Your task to perform on an android device: set an alarm Image 0: 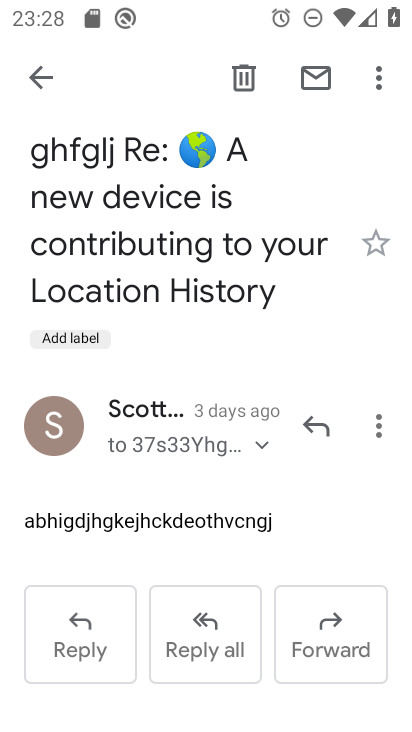
Step 0: press home button
Your task to perform on an android device: set an alarm Image 1: 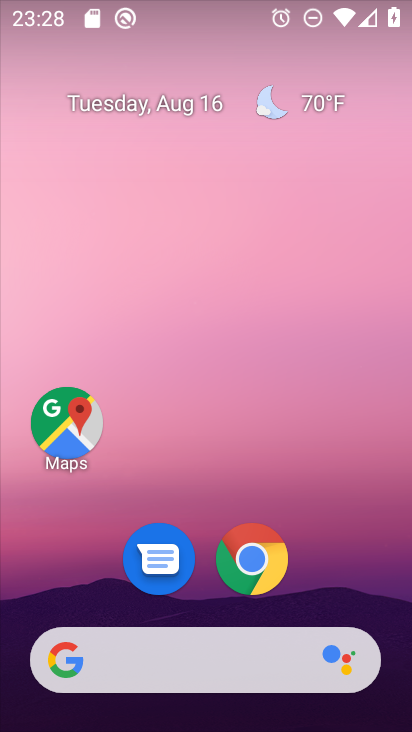
Step 1: drag from (207, 636) to (230, 109)
Your task to perform on an android device: set an alarm Image 2: 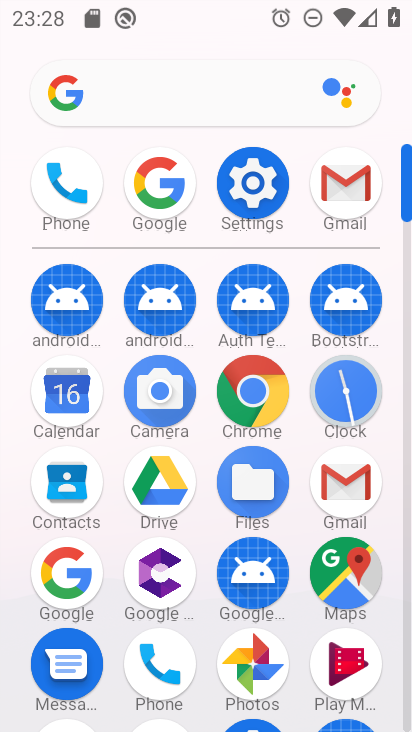
Step 2: click (347, 393)
Your task to perform on an android device: set an alarm Image 3: 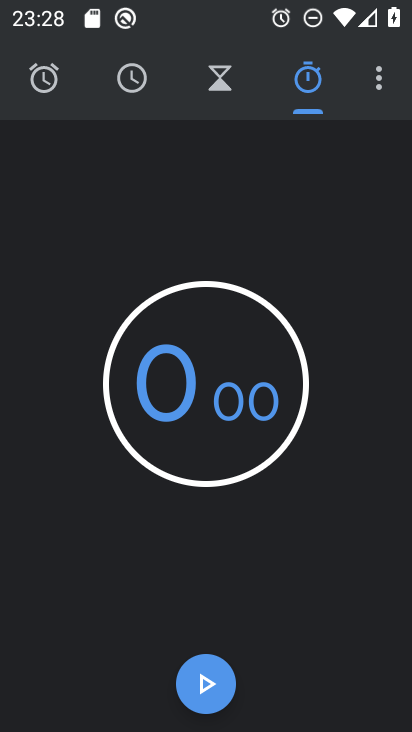
Step 3: click (45, 80)
Your task to perform on an android device: set an alarm Image 4: 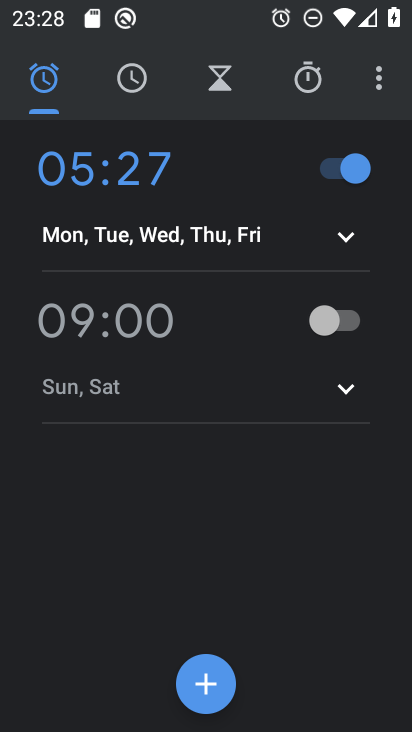
Step 4: click (206, 687)
Your task to perform on an android device: set an alarm Image 5: 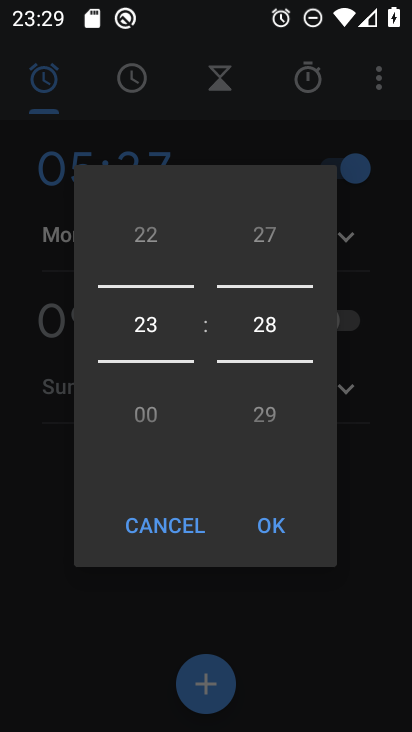
Step 5: click (155, 260)
Your task to perform on an android device: set an alarm Image 6: 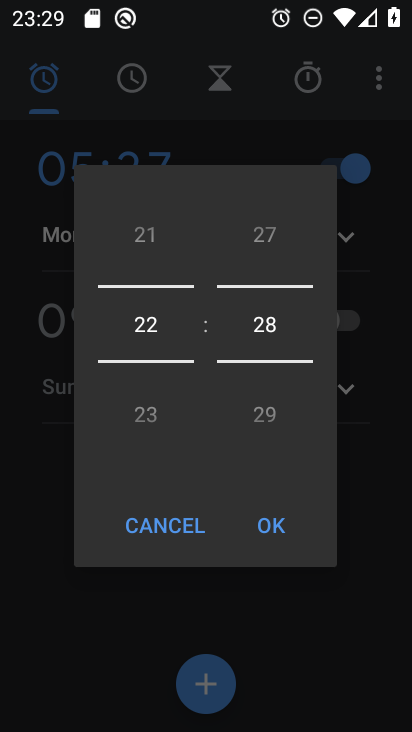
Step 6: click (155, 260)
Your task to perform on an android device: set an alarm Image 7: 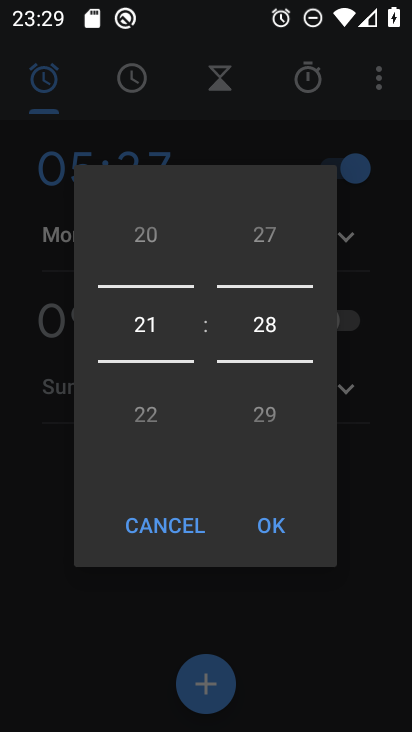
Step 7: click (155, 260)
Your task to perform on an android device: set an alarm Image 8: 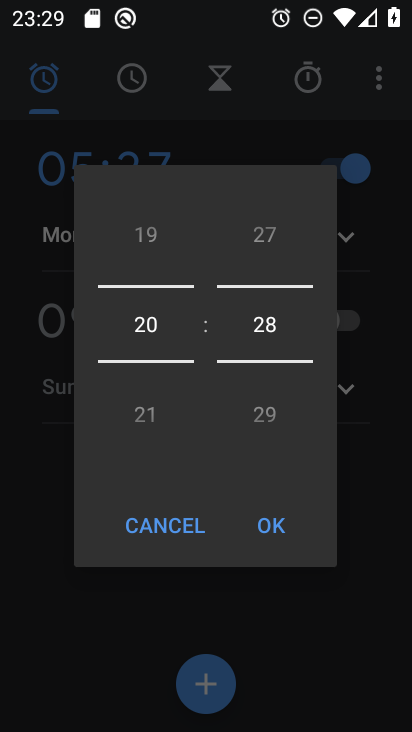
Step 8: click (155, 260)
Your task to perform on an android device: set an alarm Image 9: 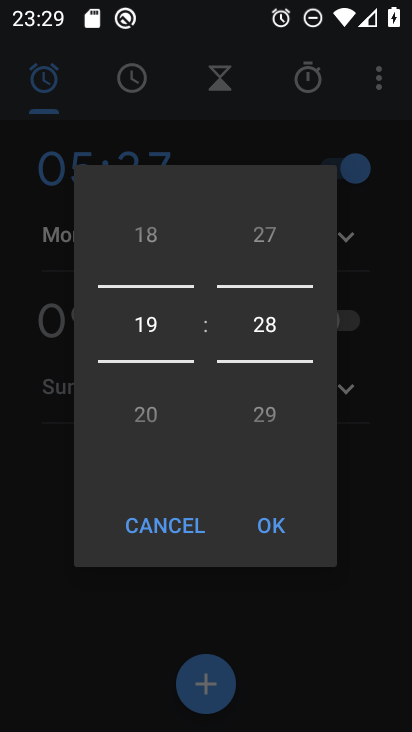
Step 9: click (155, 260)
Your task to perform on an android device: set an alarm Image 10: 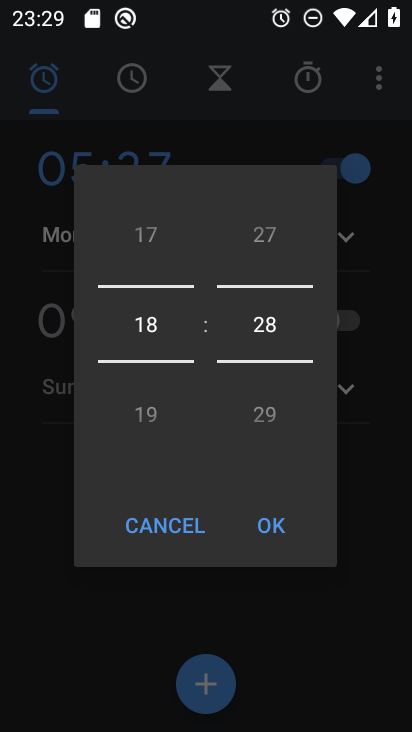
Step 10: click (155, 260)
Your task to perform on an android device: set an alarm Image 11: 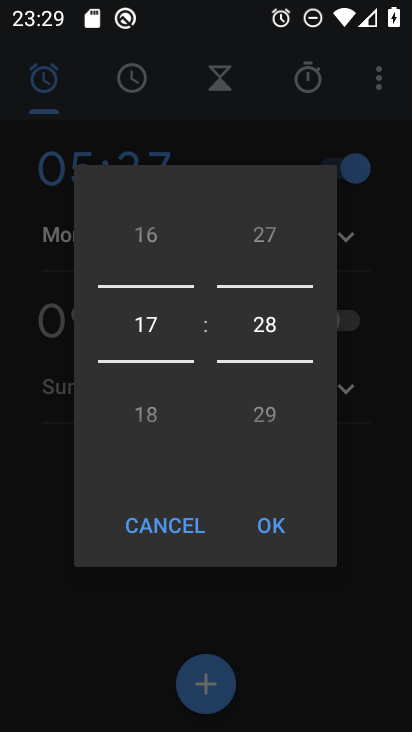
Step 11: click (155, 260)
Your task to perform on an android device: set an alarm Image 12: 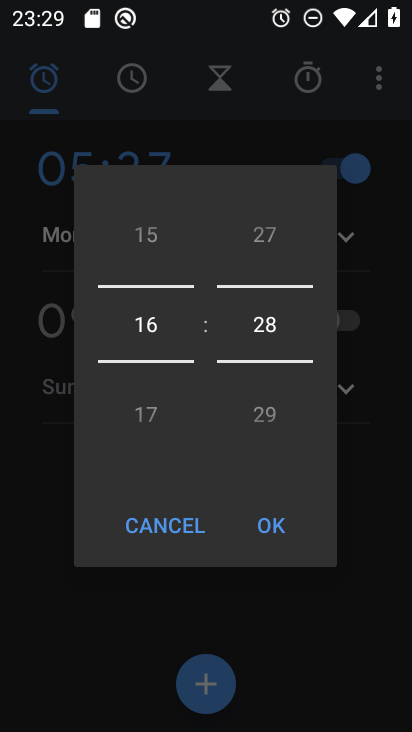
Step 12: click (155, 260)
Your task to perform on an android device: set an alarm Image 13: 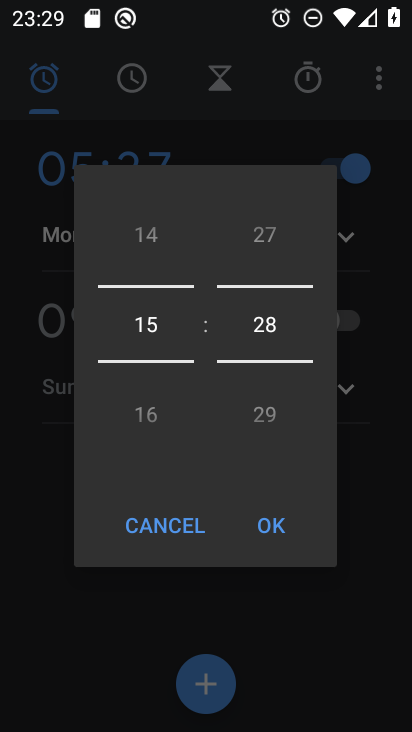
Step 13: click (155, 260)
Your task to perform on an android device: set an alarm Image 14: 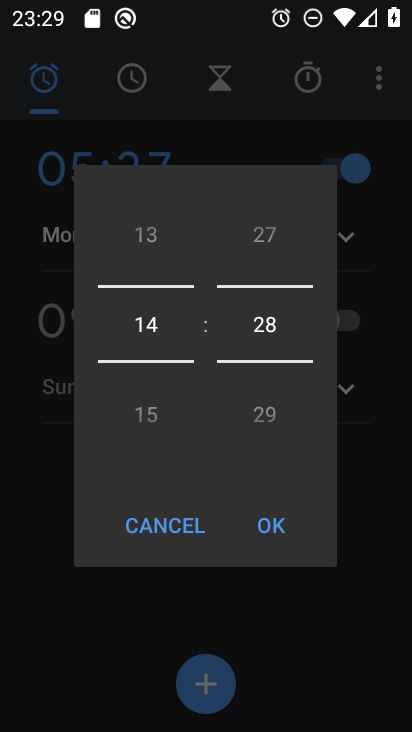
Step 14: click (155, 260)
Your task to perform on an android device: set an alarm Image 15: 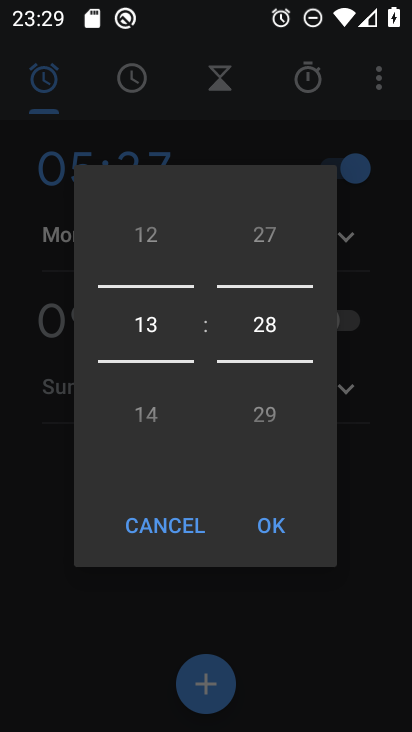
Step 15: click (155, 260)
Your task to perform on an android device: set an alarm Image 16: 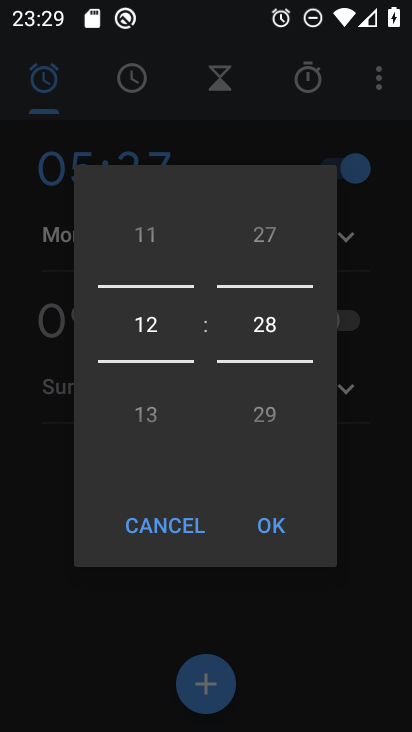
Step 16: click (259, 258)
Your task to perform on an android device: set an alarm Image 17: 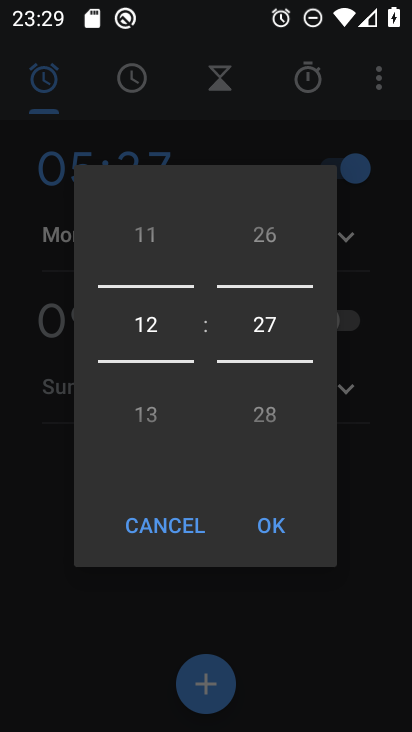
Step 17: click (259, 258)
Your task to perform on an android device: set an alarm Image 18: 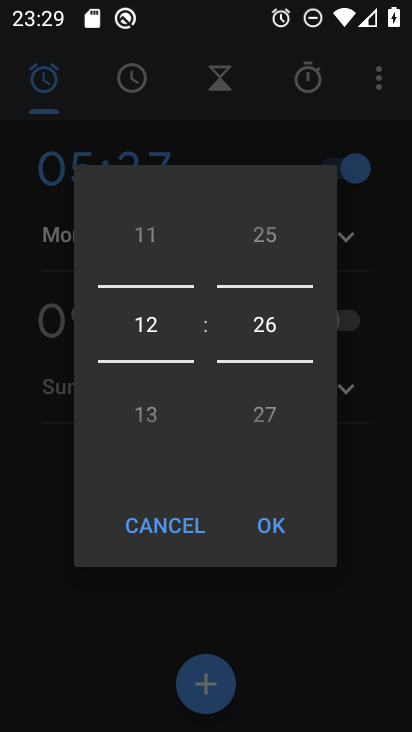
Step 18: click (259, 258)
Your task to perform on an android device: set an alarm Image 19: 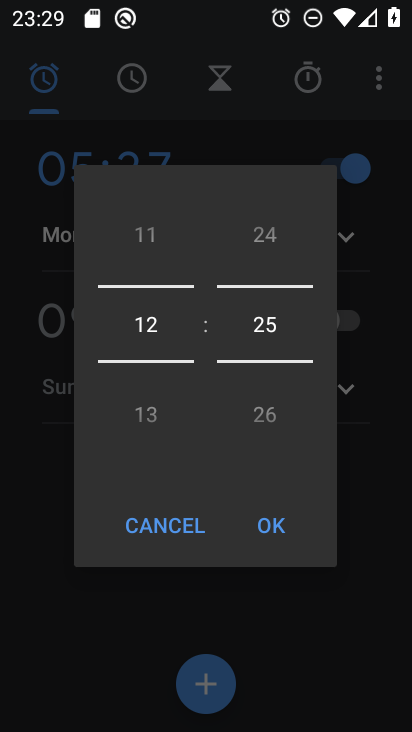
Step 19: click (259, 258)
Your task to perform on an android device: set an alarm Image 20: 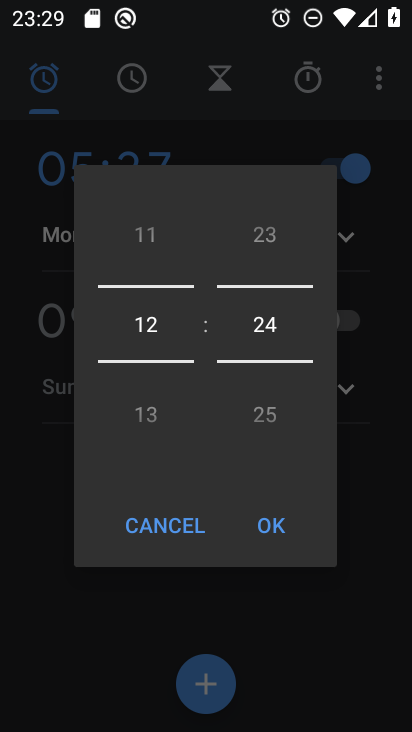
Step 20: click (259, 258)
Your task to perform on an android device: set an alarm Image 21: 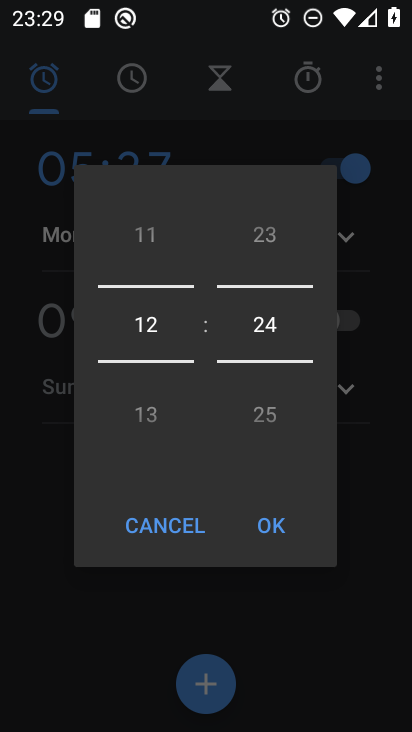
Step 21: click (259, 258)
Your task to perform on an android device: set an alarm Image 22: 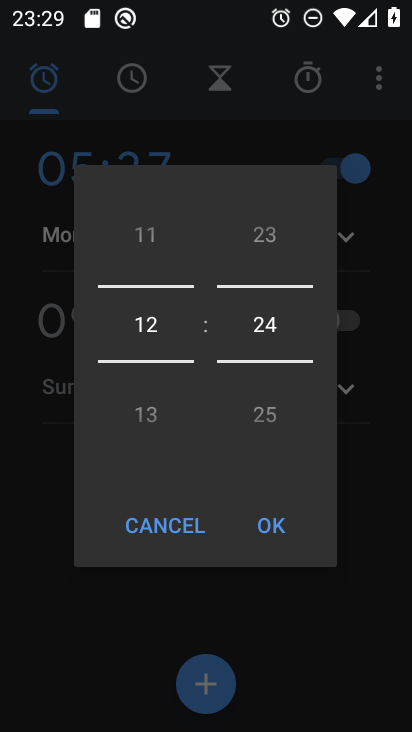
Step 22: click (259, 258)
Your task to perform on an android device: set an alarm Image 23: 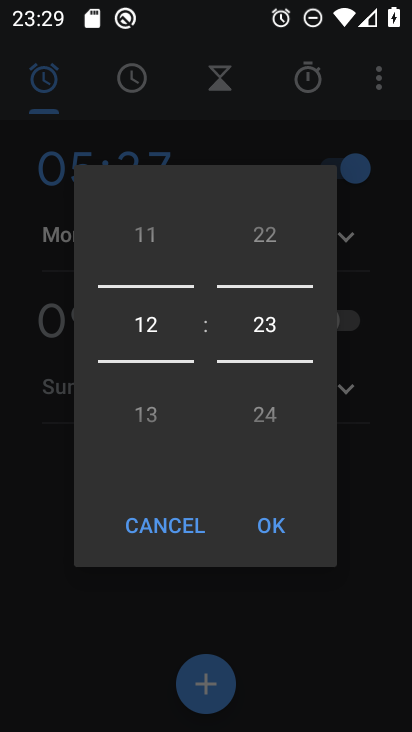
Step 23: click (259, 258)
Your task to perform on an android device: set an alarm Image 24: 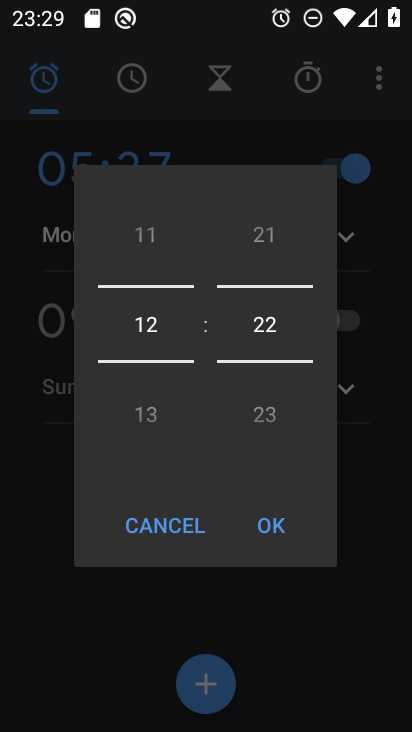
Step 24: click (259, 258)
Your task to perform on an android device: set an alarm Image 25: 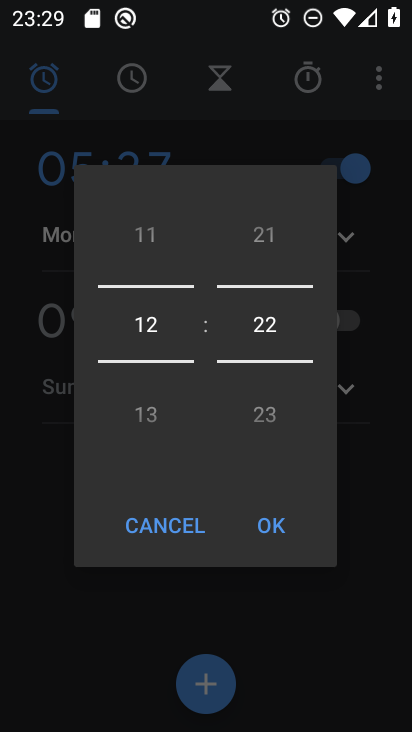
Step 25: click (265, 521)
Your task to perform on an android device: set an alarm Image 26: 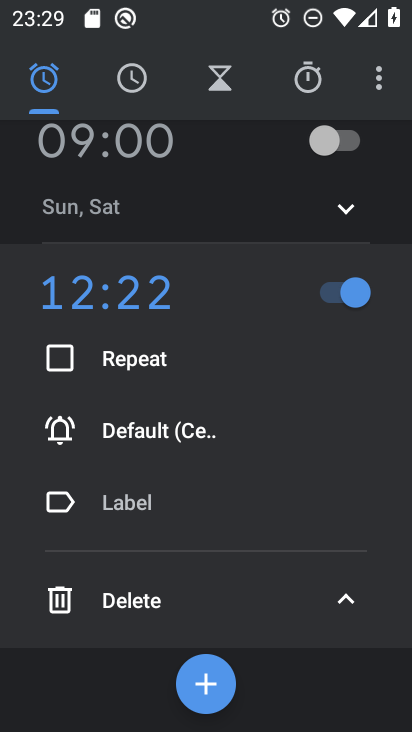
Step 26: click (348, 593)
Your task to perform on an android device: set an alarm Image 27: 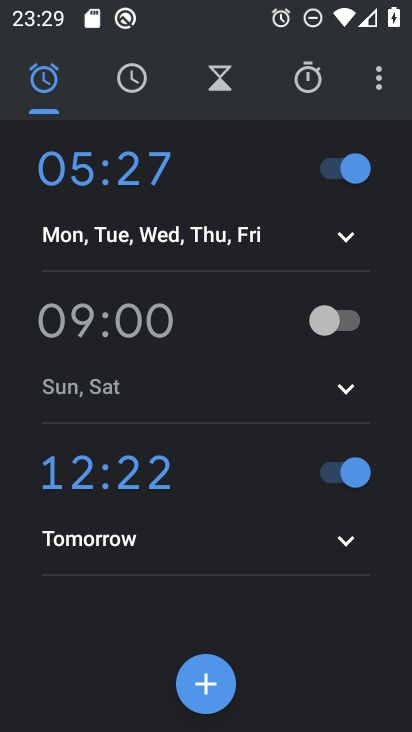
Step 27: task complete